Your task to perform on an android device: Empty the shopping cart on bestbuy. Search for "dell alienware" on bestbuy, select the first entry, add it to the cart, then select checkout. Image 0: 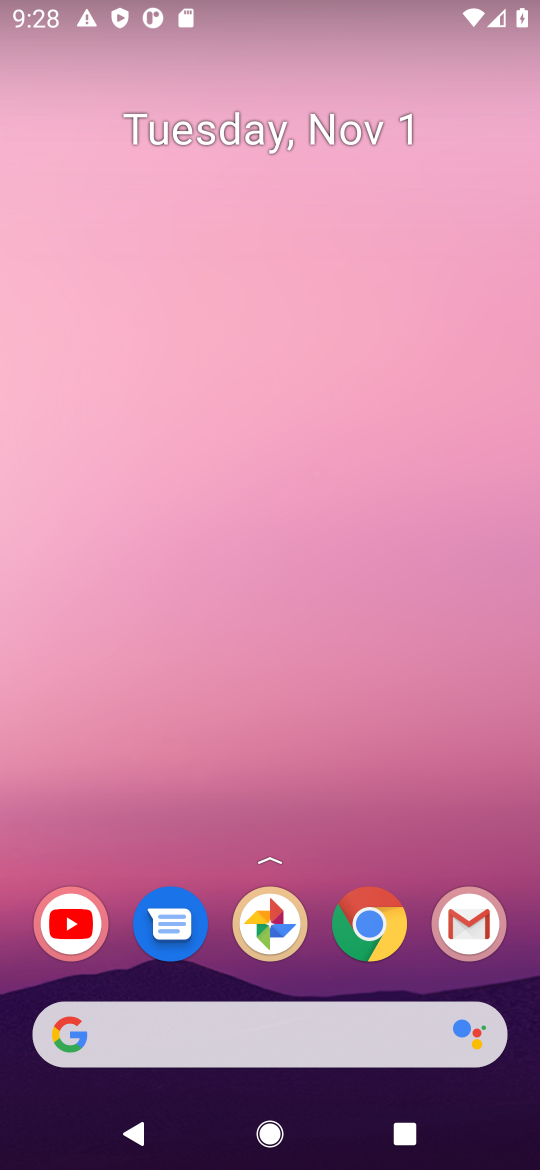
Step 0: click (367, 925)
Your task to perform on an android device: Empty the shopping cart on bestbuy. Search for "dell alienware" on bestbuy, select the first entry, add it to the cart, then select checkout. Image 1: 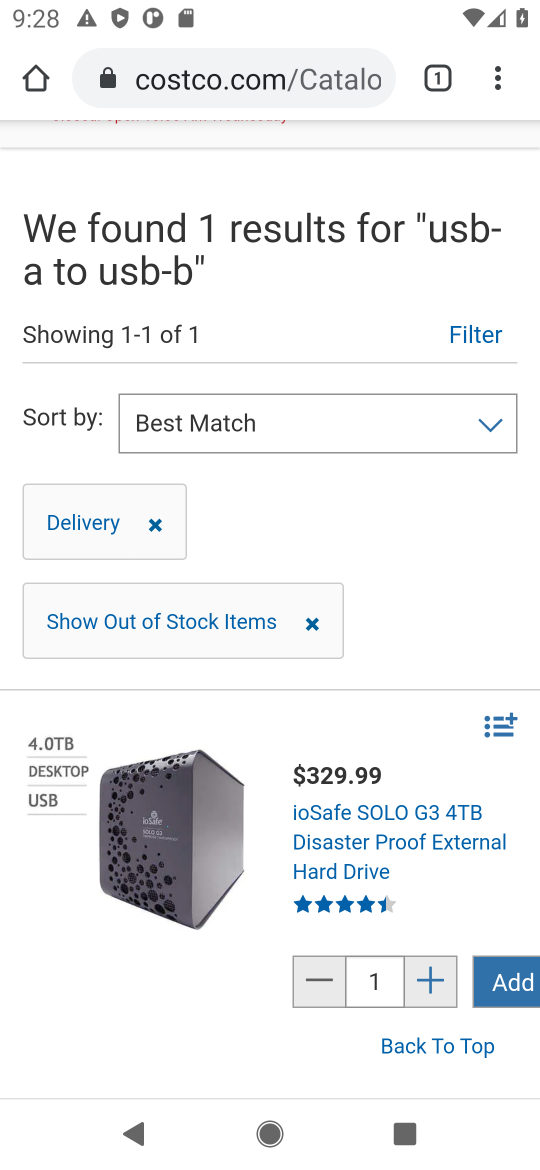
Step 1: click (181, 80)
Your task to perform on an android device: Empty the shopping cart on bestbuy. Search for "dell alienware" on bestbuy, select the first entry, add it to the cart, then select checkout. Image 2: 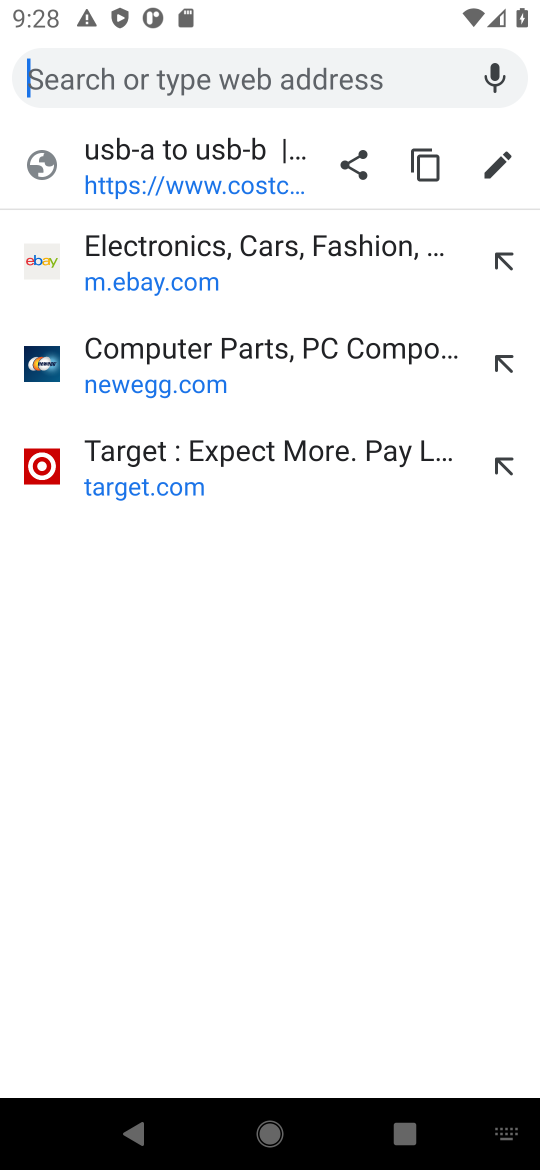
Step 2: type "bestbuy"
Your task to perform on an android device: Empty the shopping cart on bestbuy. Search for "dell alienware" on bestbuy, select the first entry, add it to the cart, then select checkout. Image 3: 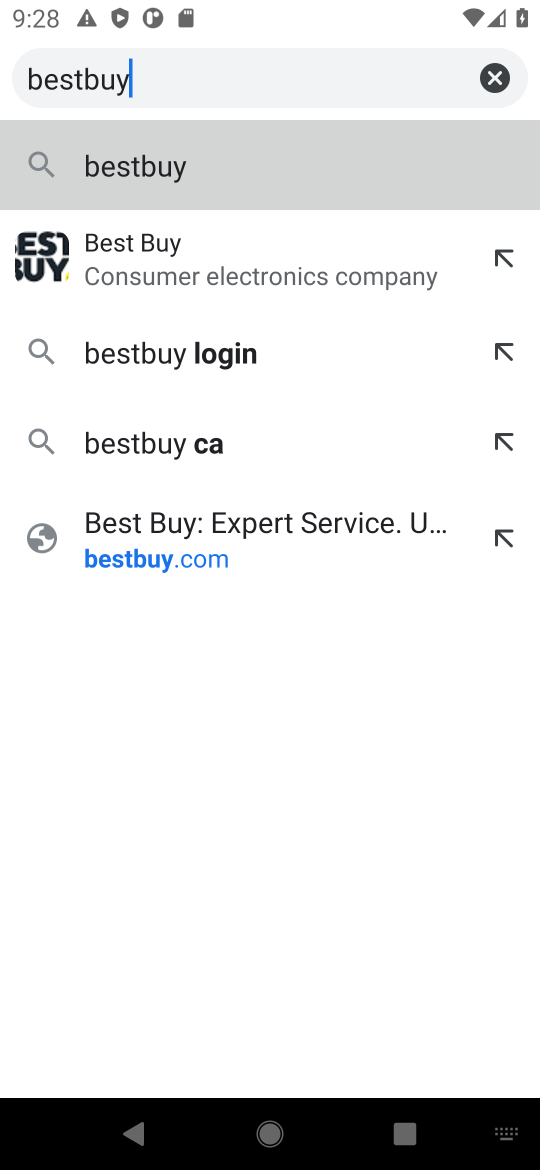
Step 3: click (116, 227)
Your task to perform on an android device: Empty the shopping cart on bestbuy. Search for "dell alienware" on bestbuy, select the first entry, add it to the cart, then select checkout. Image 4: 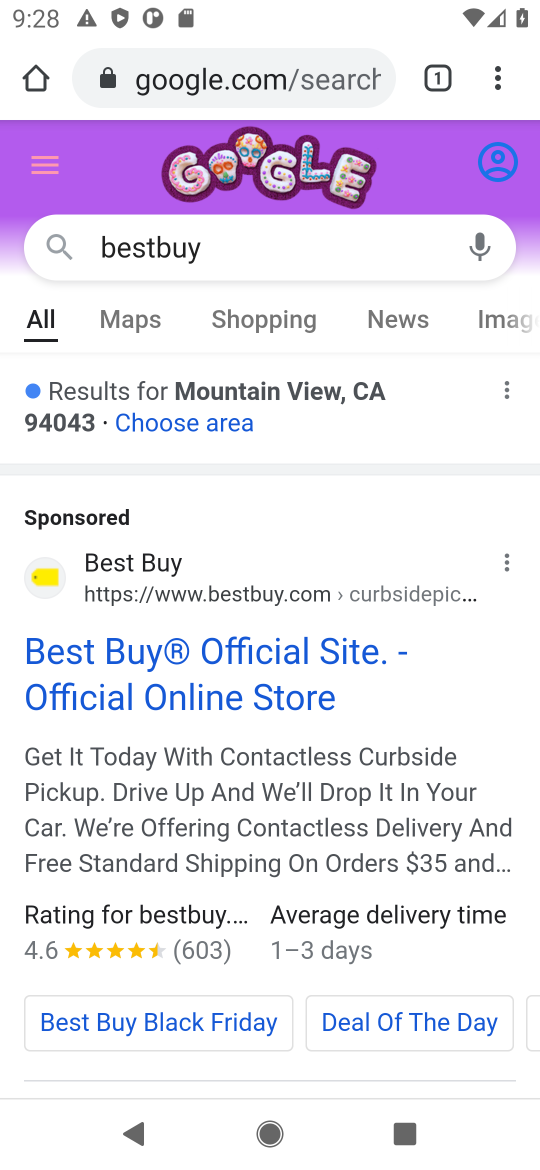
Step 4: click (146, 638)
Your task to perform on an android device: Empty the shopping cart on bestbuy. Search for "dell alienware" on bestbuy, select the first entry, add it to the cart, then select checkout. Image 5: 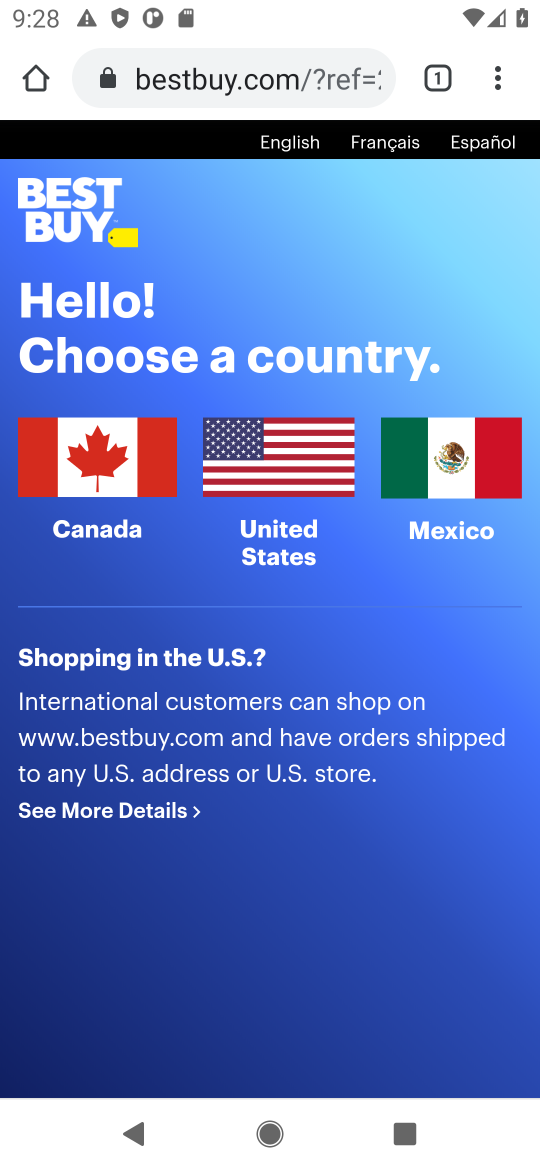
Step 5: click (275, 475)
Your task to perform on an android device: Empty the shopping cart on bestbuy. Search for "dell alienware" on bestbuy, select the first entry, add it to the cart, then select checkout. Image 6: 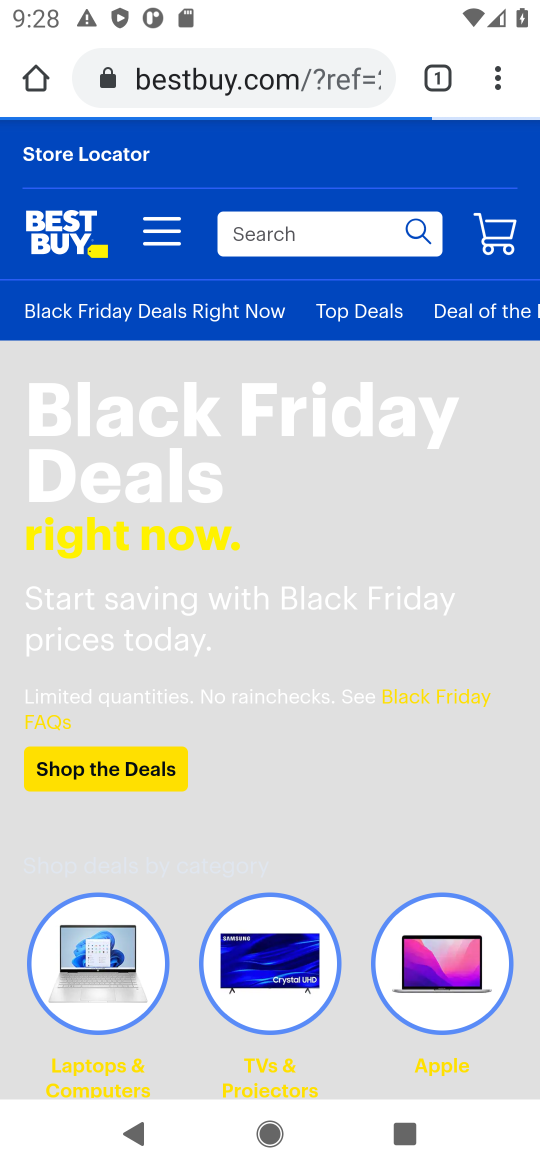
Step 6: click (502, 238)
Your task to perform on an android device: Empty the shopping cart on bestbuy. Search for "dell alienware" on bestbuy, select the first entry, add it to the cart, then select checkout. Image 7: 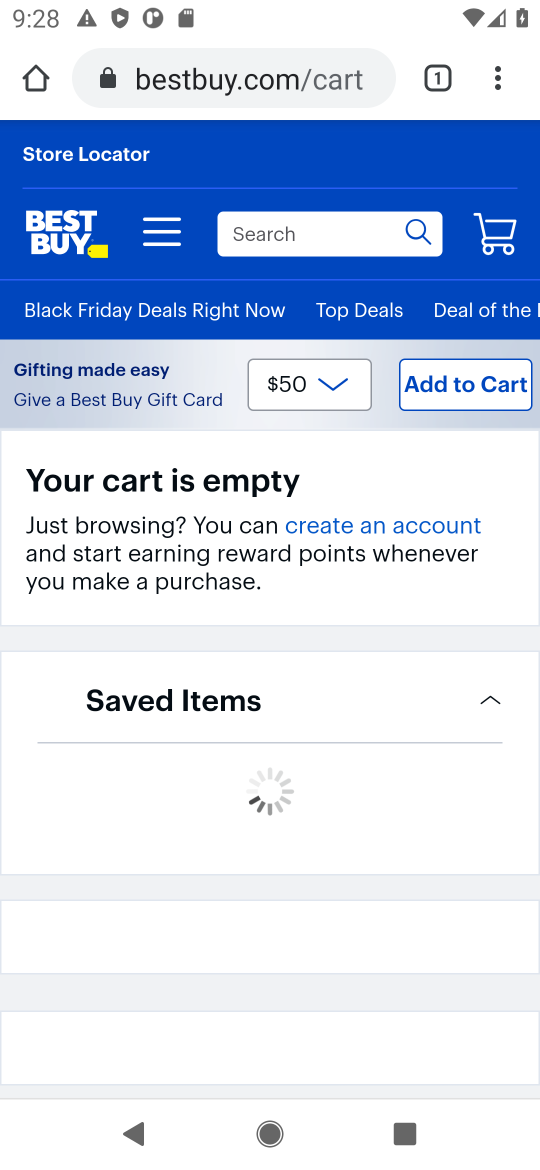
Step 7: click (368, 228)
Your task to perform on an android device: Empty the shopping cart on bestbuy. Search for "dell alienware" on bestbuy, select the first entry, add it to the cart, then select checkout. Image 8: 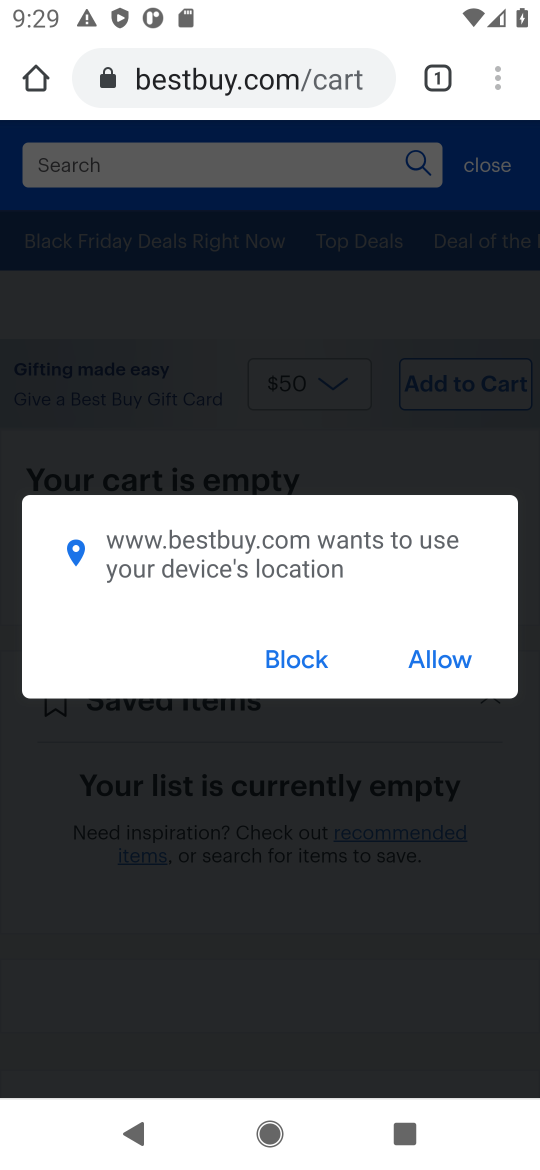
Step 8: type "dell alienware"
Your task to perform on an android device: Empty the shopping cart on bestbuy. Search for "dell alienware" on bestbuy, select the first entry, add it to the cart, then select checkout. Image 9: 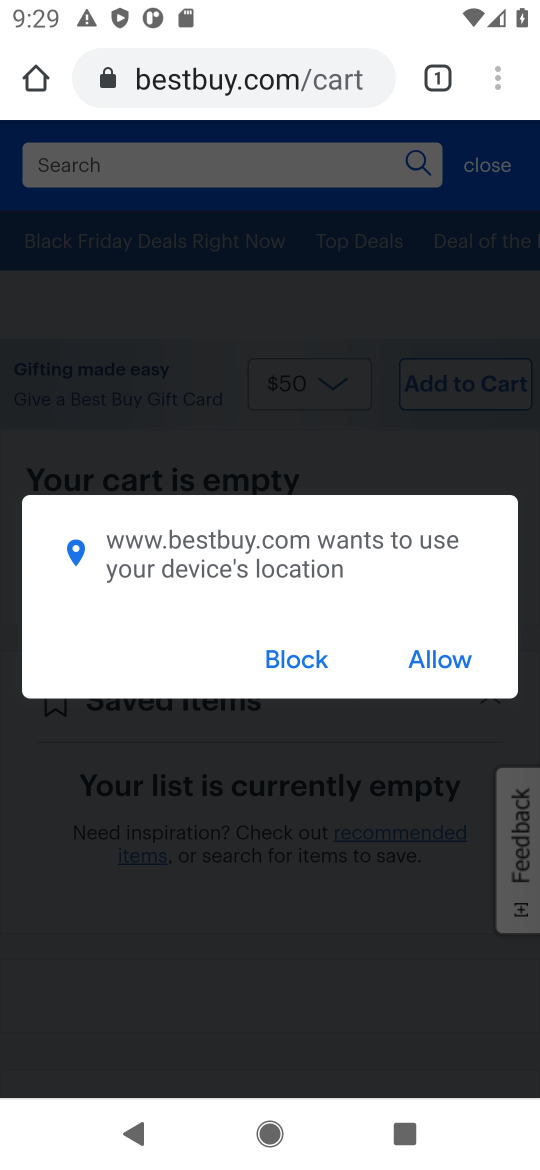
Step 9: click (440, 656)
Your task to perform on an android device: Empty the shopping cart on bestbuy. Search for "dell alienware" on bestbuy, select the first entry, add it to the cart, then select checkout. Image 10: 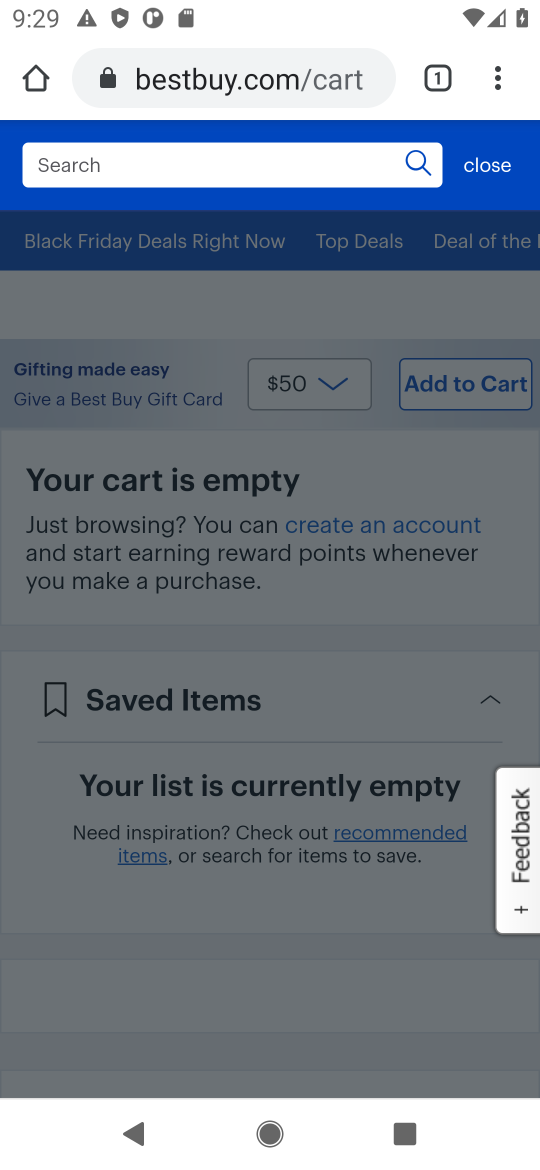
Step 10: click (159, 168)
Your task to perform on an android device: Empty the shopping cart on bestbuy. Search for "dell alienware" on bestbuy, select the first entry, add it to the cart, then select checkout. Image 11: 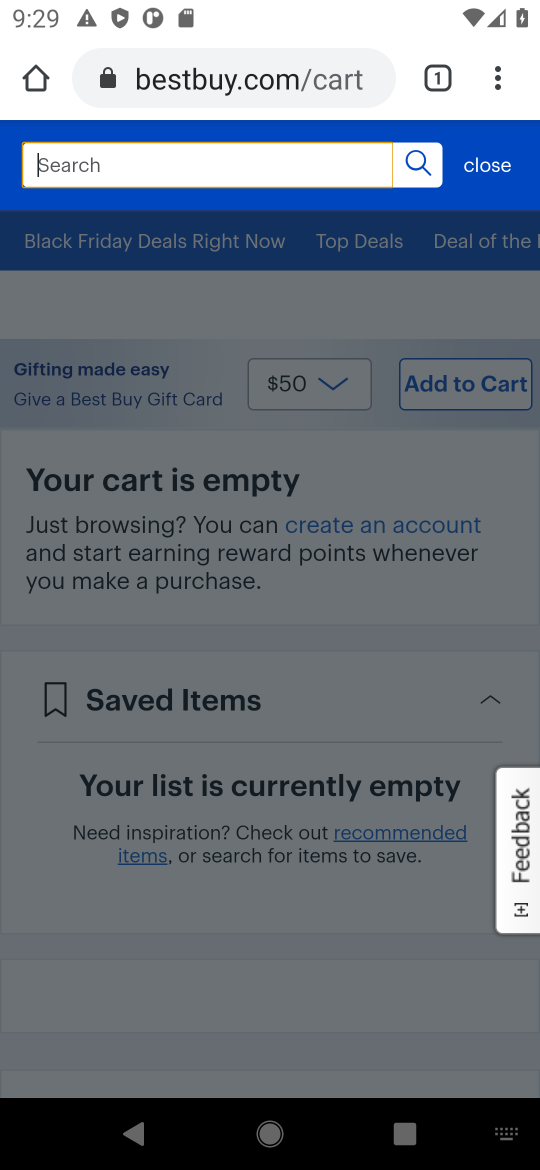
Step 11: type "dell alienware"
Your task to perform on an android device: Empty the shopping cart on bestbuy. Search for "dell alienware" on bestbuy, select the first entry, add it to the cart, then select checkout. Image 12: 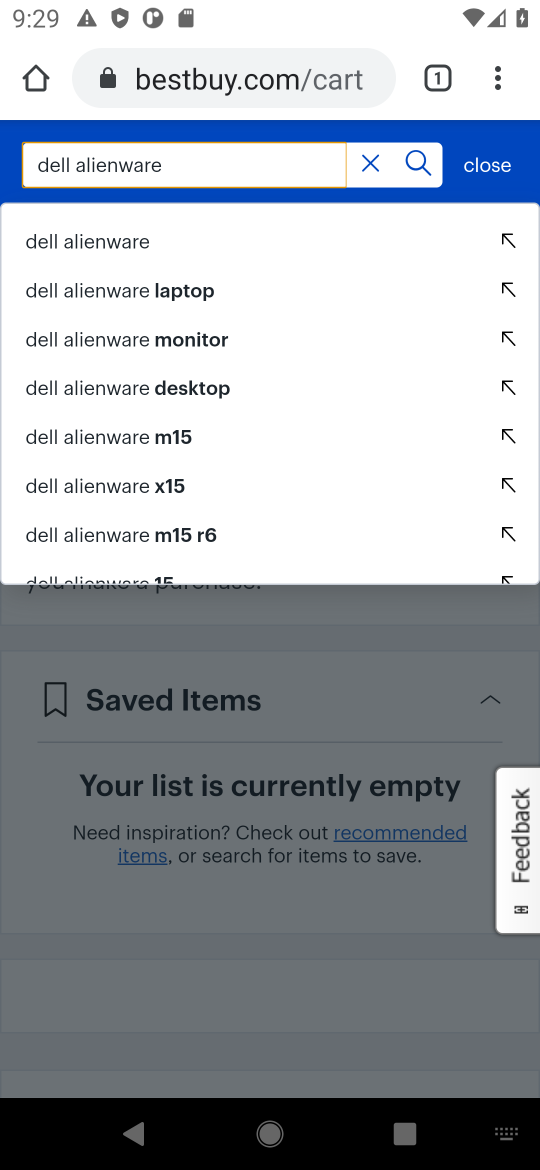
Step 12: click (126, 245)
Your task to perform on an android device: Empty the shopping cart on bestbuy. Search for "dell alienware" on bestbuy, select the first entry, add it to the cart, then select checkout. Image 13: 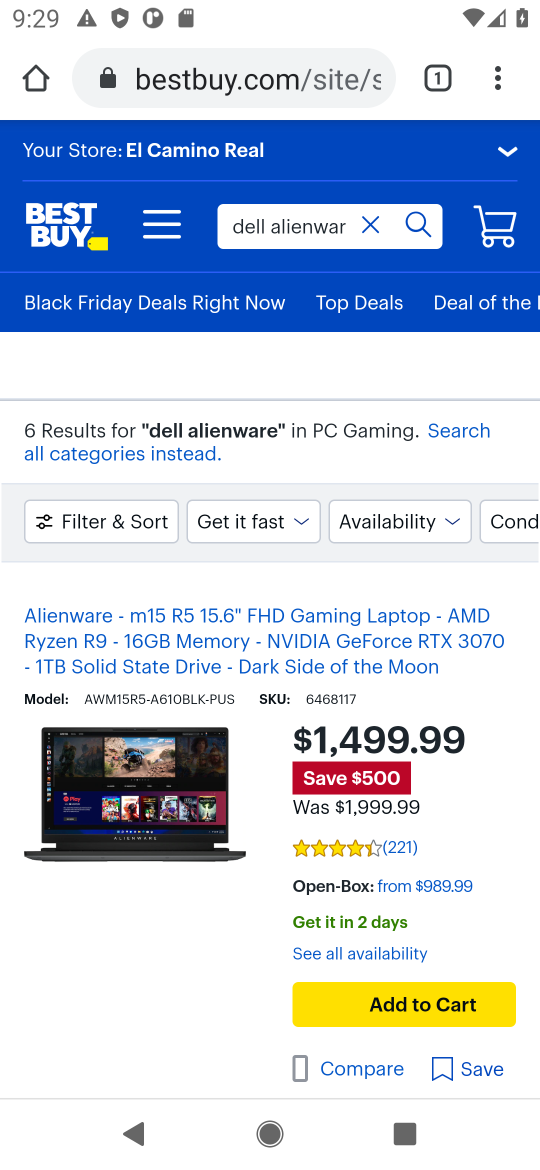
Step 13: click (140, 764)
Your task to perform on an android device: Empty the shopping cart on bestbuy. Search for "dell alienware" on bestbuy, select the first entry, add it to the cart, then select checkout. Image 14: 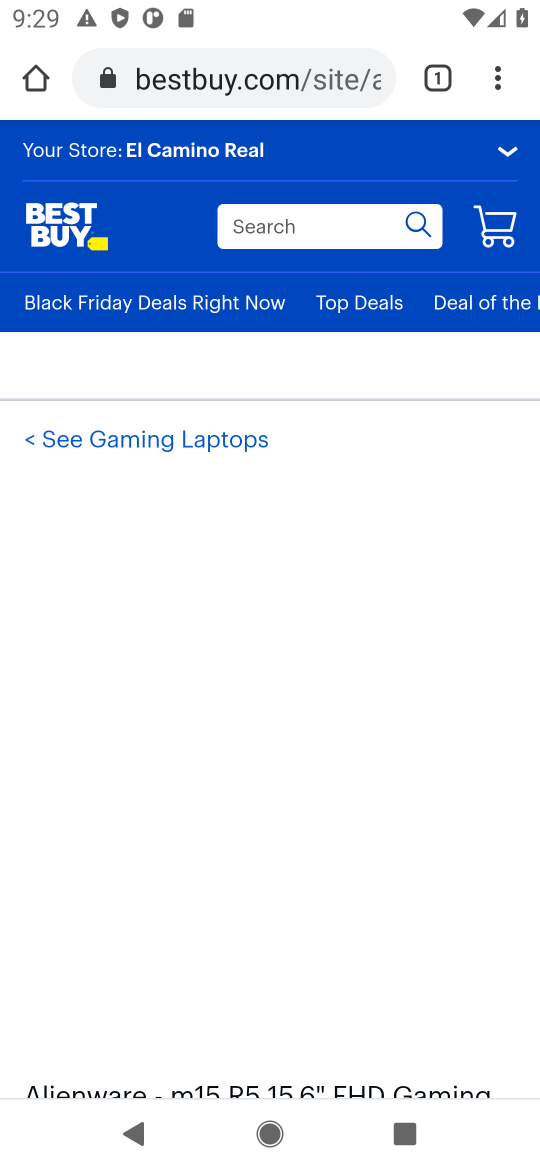
Step 14: drag from (203, 845) to (125, 207)
Your task to perform on an android device: Empty the shopping cart on bestbuy. Search for "dell alienware" on bestbuy, select the first entry, add it to the cart, then select checkout. Image 15: 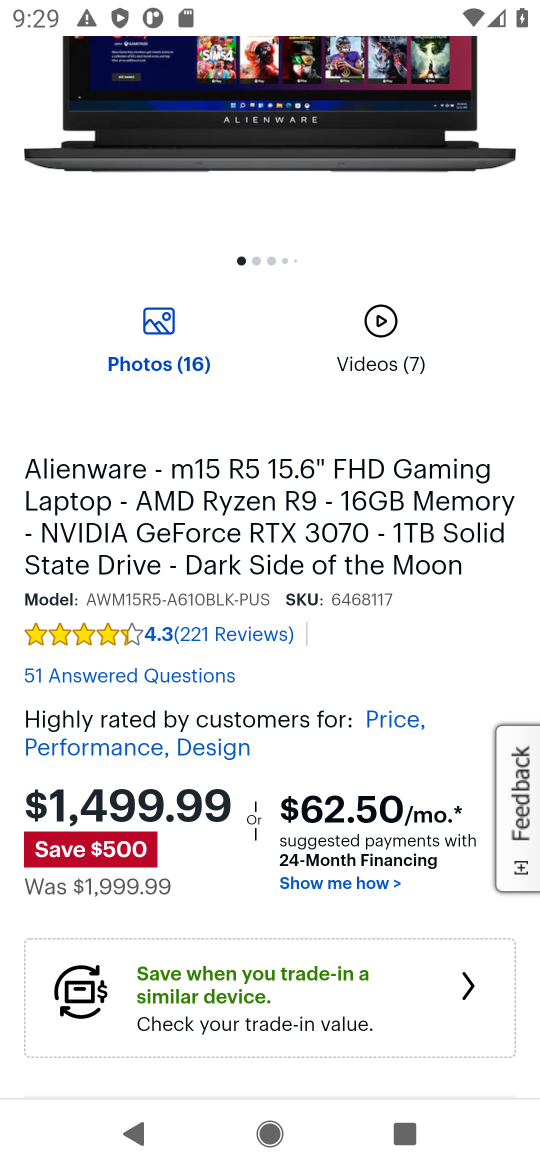
Step 15: drag from (321, 737) to (281, 407)
Your task to perform on an android device: Empty the shopping cart on bestbuy. Search for "dell alienware" on bestbuy, select the first entry, add it to the cart, then select checkout. Image 16: 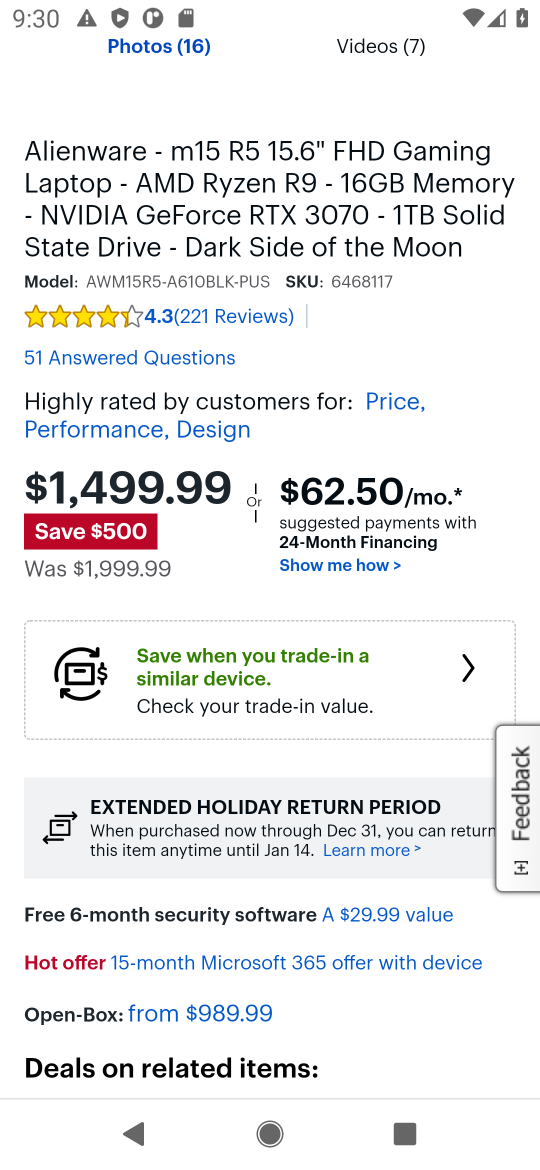
Step 16: drag from (246, 622) to (207, 228)
Your task to perform on an android device: Empty the shopping cart on bestbuy. Search for "dell alienware" on bestbuy, select the first entry, add it to the cart, then select checkout. Image 17: 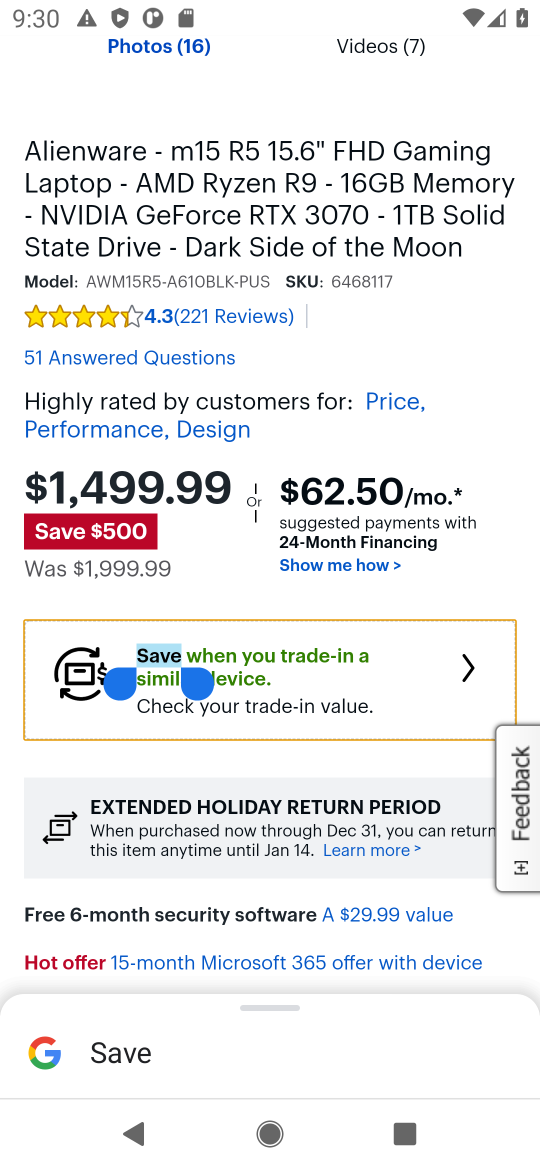
Step 17: drag from (234, 580) to (188, 281)
Your task to perform on an android device: Empty the shopping cart on bestbuy. Search for "dell alienware" on bestbuy, select the first entry, add it to the cart, then select checkout. Image 18: 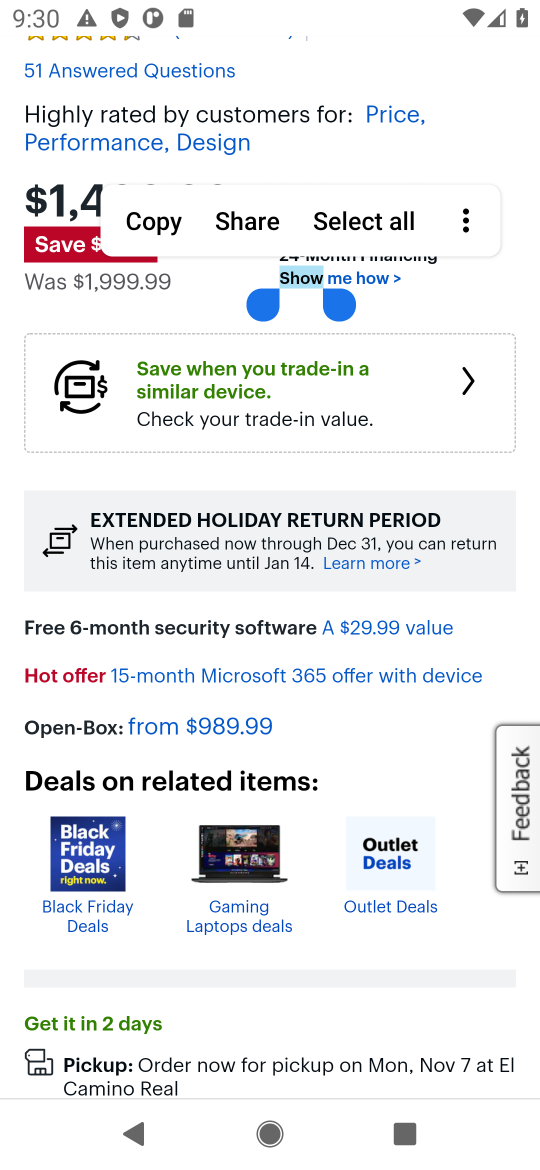
Step 18: drag from (151, 845) to (134, 86)
Your task to perform on an android device: Empty the shopping cart on bestbuy. Search for "dell alienware" on bestbuy, select the first entry, add it to the cart, then select checkout. Image 19: 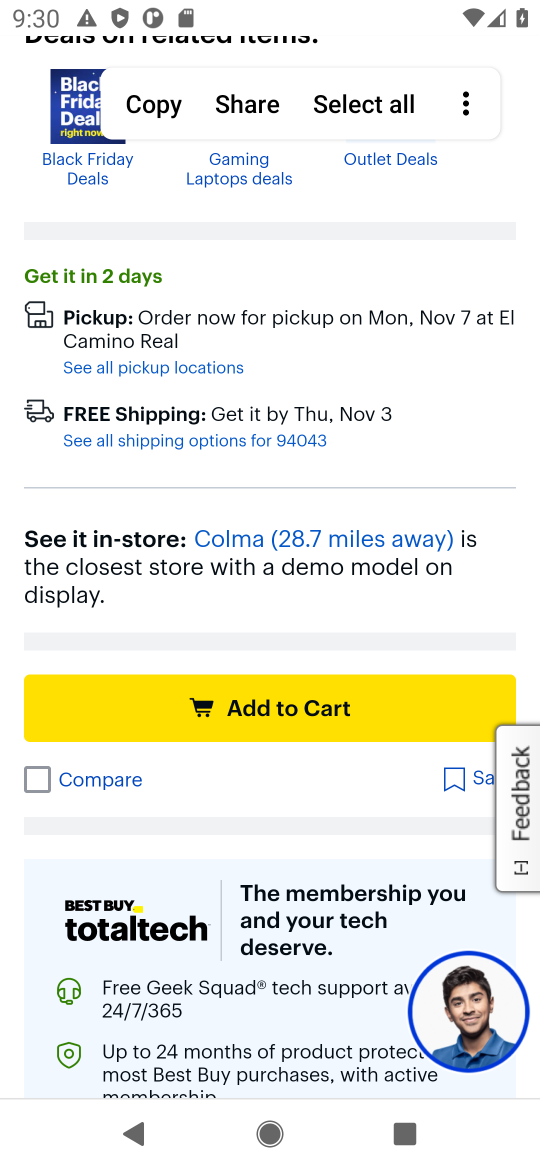
Step 19: click (278, 704)
Your task to perform on an android device: Empty the shopping cart on bestbuy. Search for "dell alienware" on bestbuy, select the first entry, add it to the cart, then select checkout. Image 20: 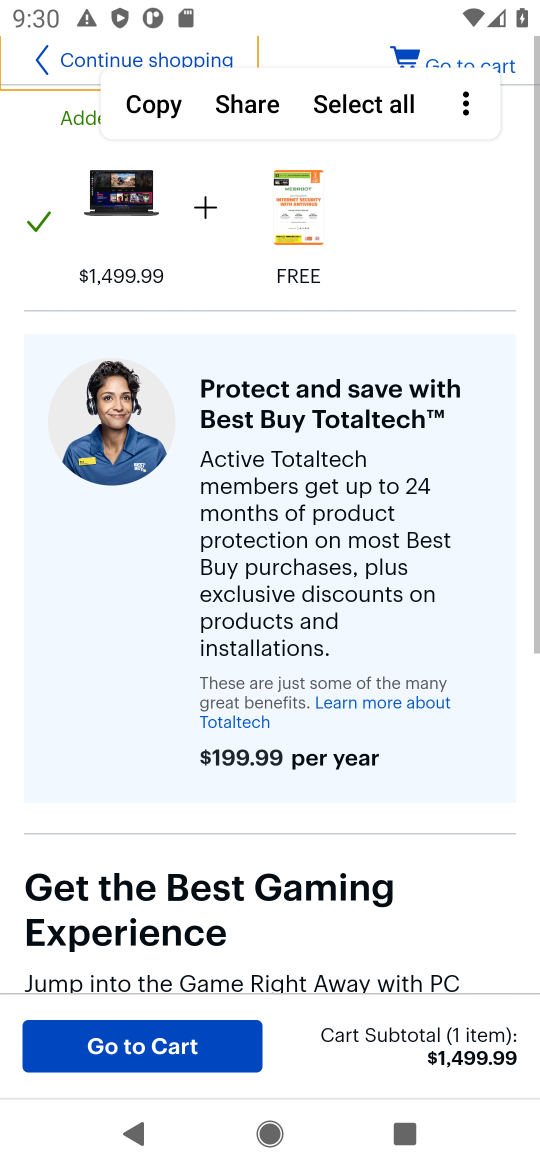
Step 20: click (145, 1044)
Your task to perform on an android device: Empty the shopping cart on bestbuy. Search for "dell alienware" on bestbuy, select the first entry, add it to the cart, then select checkout. Image 21: 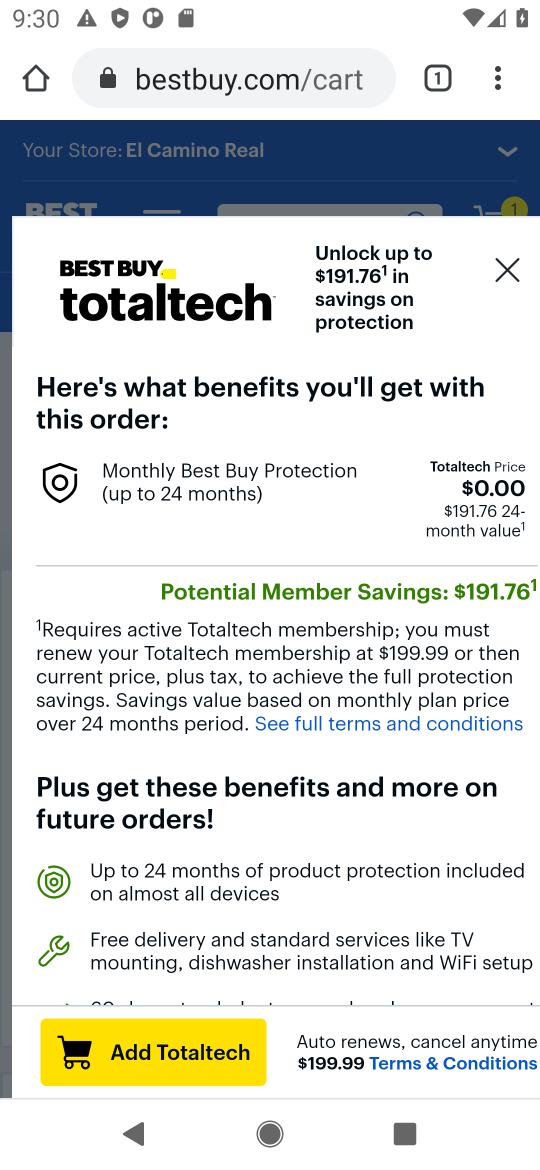
Step 21: click (512, 271)
Your task to perform on an android device: Empty the shopping cart on bestbuy. Search for "dell alienware" on bestbuy, select the first entry, add it to the cart, then select checkout. Image 22: 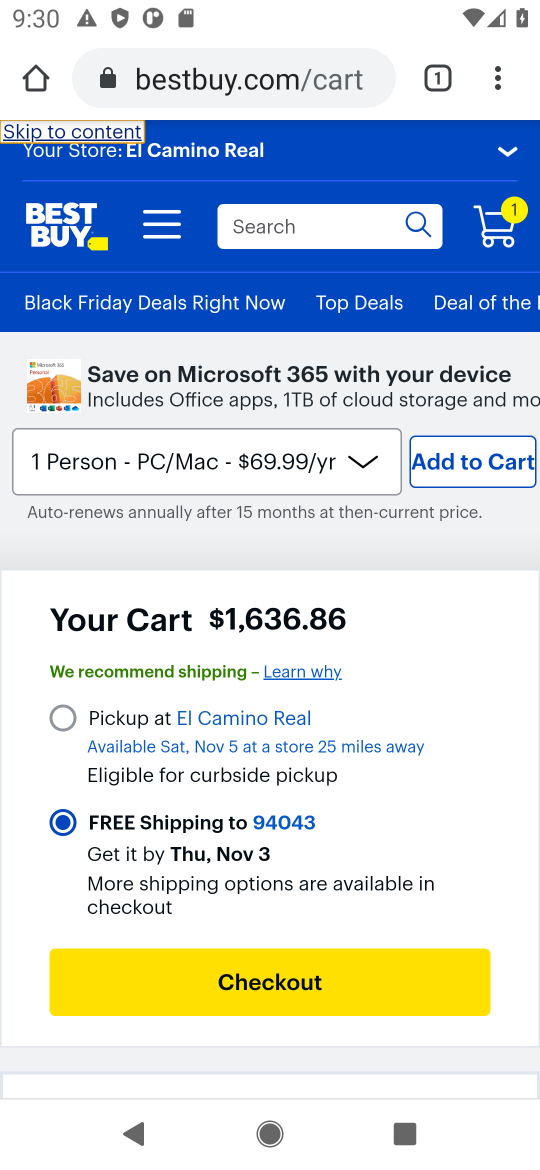
Step 22: click (146, 982)
Your task to perform on an android device: Empty the shopping cart on bestbuy. Search for "dell alienware" on bestbuy, select the first entry, add it to the cart, then select checkout. Image 23: 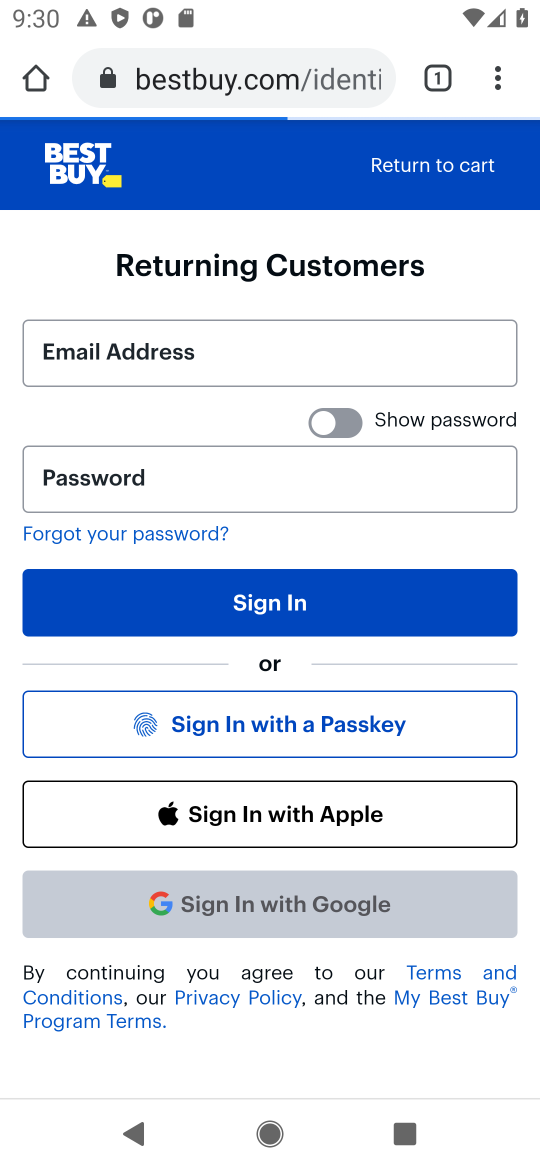
Step 23: task complete